Your task to perform on an android device: What is the news today? Image 0: 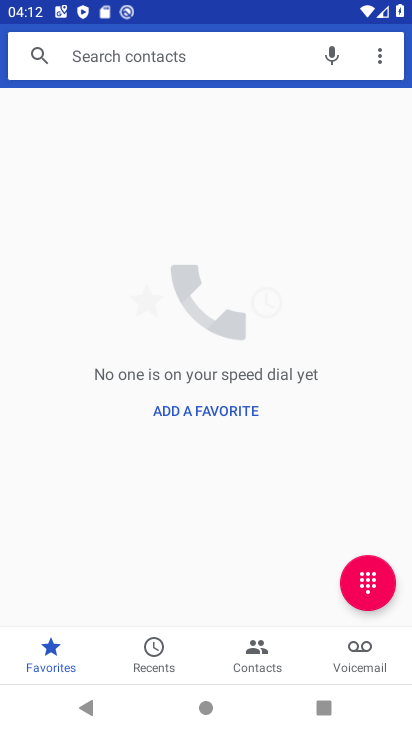
Step 0: press home button
Your task to perform on an android device: What is the news today? Image 1: 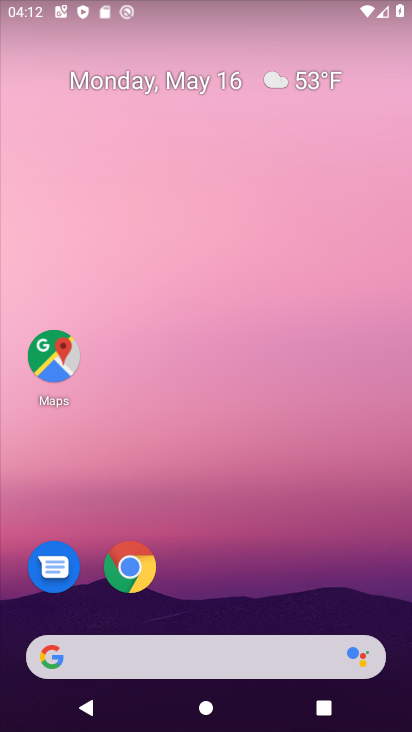
Step 1: drag from (172, 631) to (218, 27)
Your task to perform on an android device: What is the news today? Image 2: 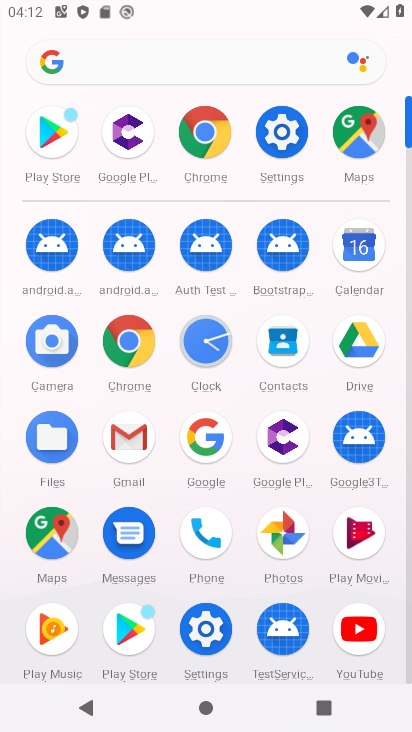
Step 2: click (124, 340)
Your task to perform on an android device: What is the news today? Image 3: 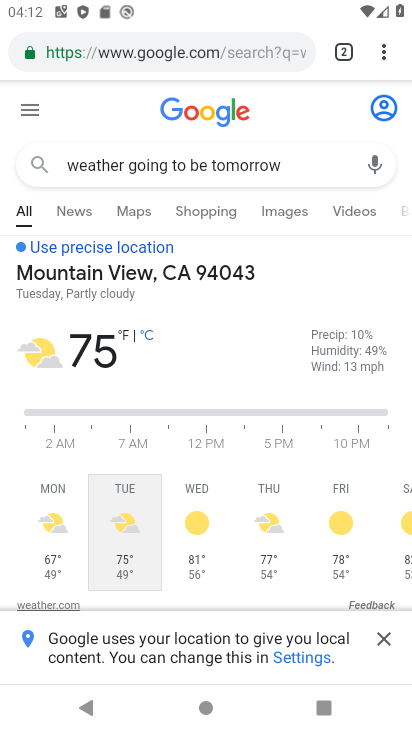
Step 3: click (234, 49)
Your task to perform on an android device: What is the news today? Image 4: 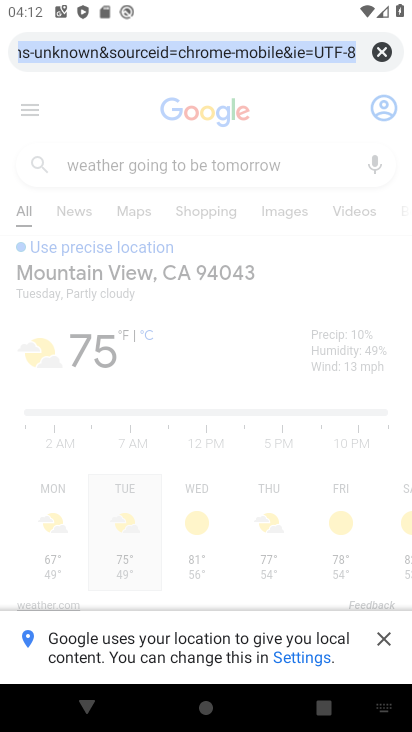
Step 4: click (382, 50)
Your task to perform on an android device: What is the news today? Image 5: 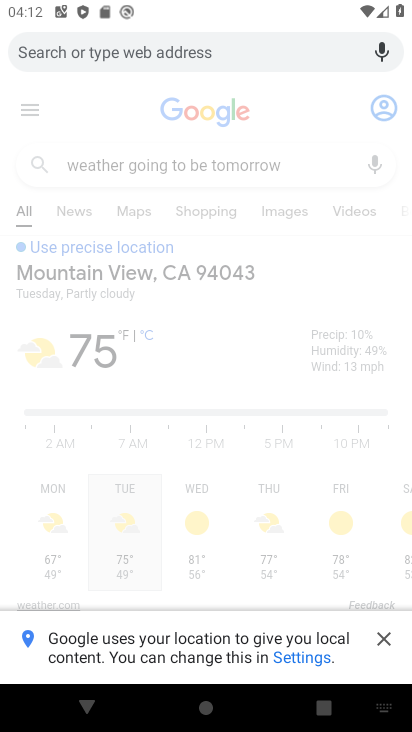
Step 5: type "news today"
Your task to perform on an android device: What is the news today? Image 6: 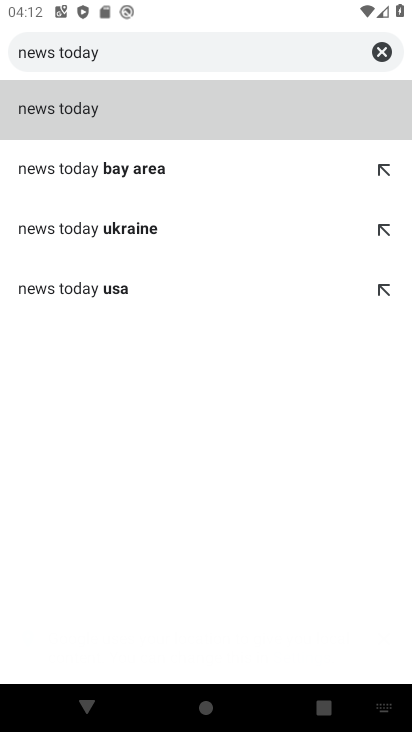
Step 6: click (148, 114)
Your task to perform on an android device: What is the news today? Image 7: 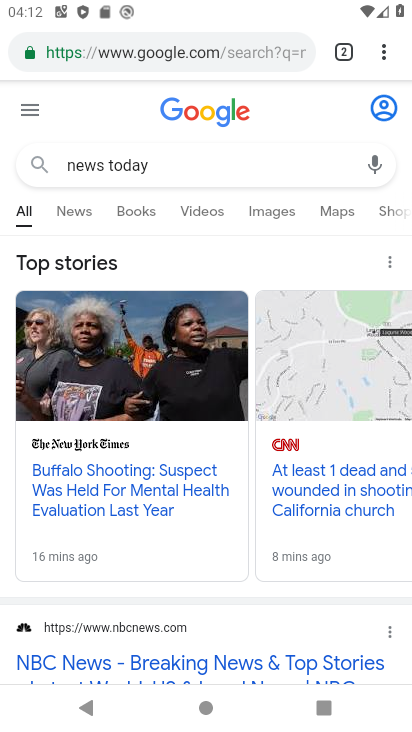
Step 7: task complete